Your task to perform on an android device: Open privacy settings Image 0: 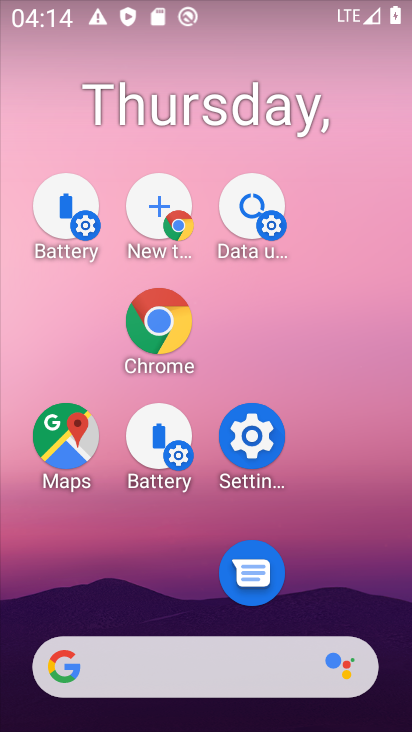
Step 0: drag from (202, 694) to (137, 248)
Your task to perform on an android device: Open privacy settings Image 1: 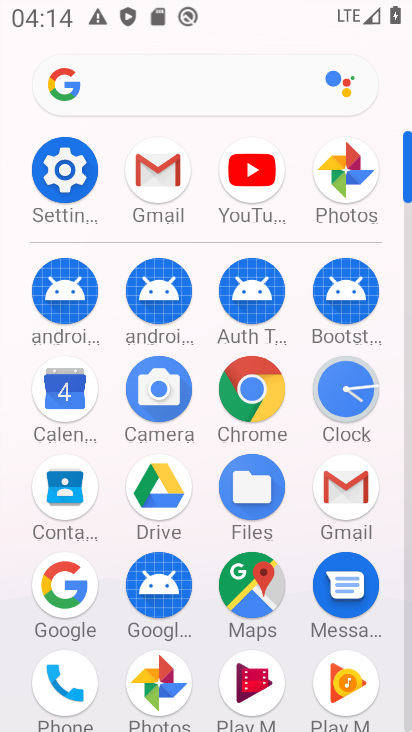
Step 1: click (61, 181)
Your task to perform on an android device: Open privacy settings Image 2: 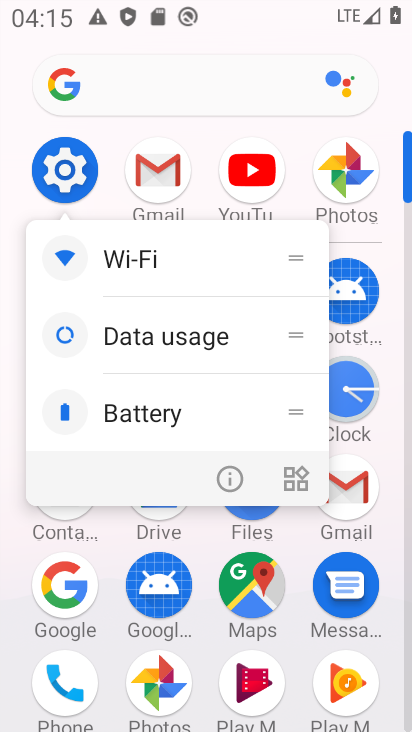
Step 2: click (162, 264)
Your task to perform on an android device: Open privacy settings Image 3: 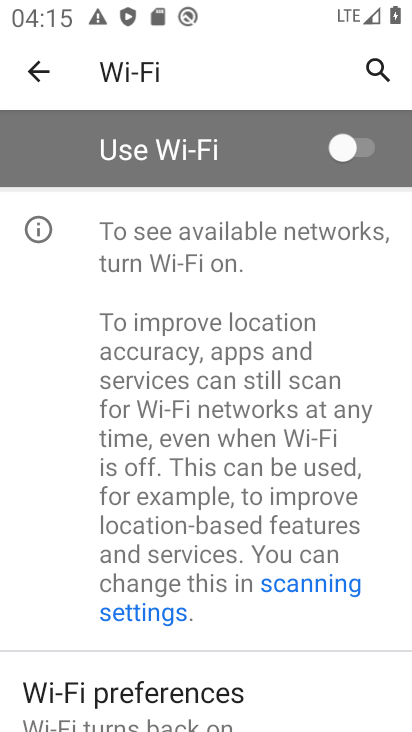
Step 3: click (25, 66)
Your task to perform on an android device: Open privacy settings Image 4: 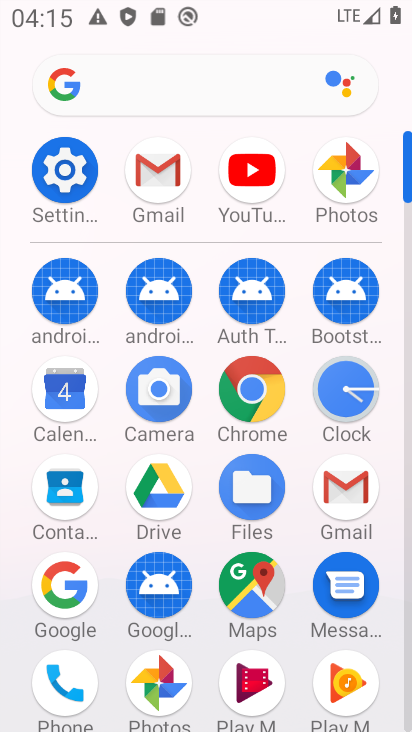
Step 4: click (56, 171)
Your task to perform on an android device: Open privacy settings Image 5: 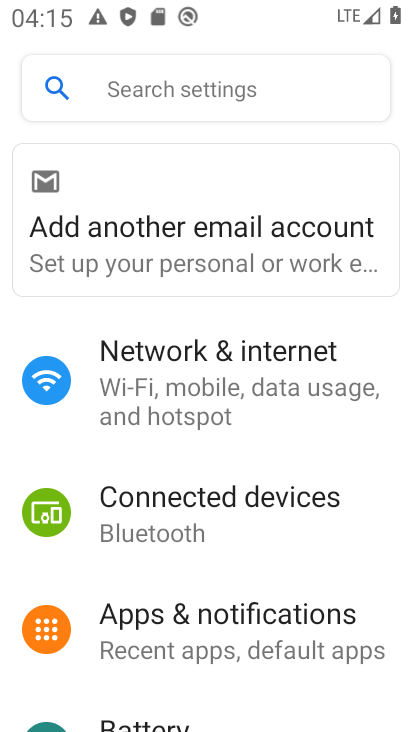
Step 5: drag from (206, 461) to (196, 171)
Your task to perform on an android device: Open privacy settings Image 6: 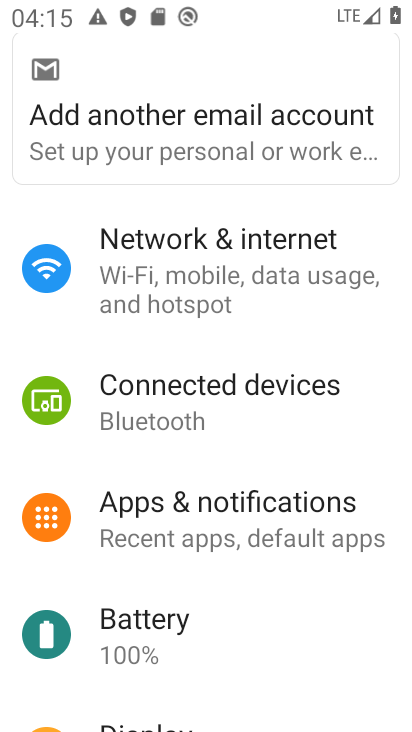
Step 6: drag from (214, 512) to (214, 438)
Your task to perform on an android device: Open privacy settings Image 7: 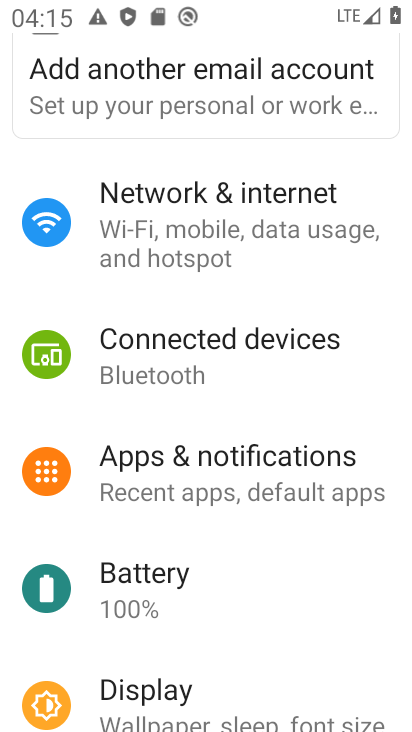
Step 7: drag from (163, 654) to (128, 220)
Your task to perform on an android device: Open privacy settings Image 8: 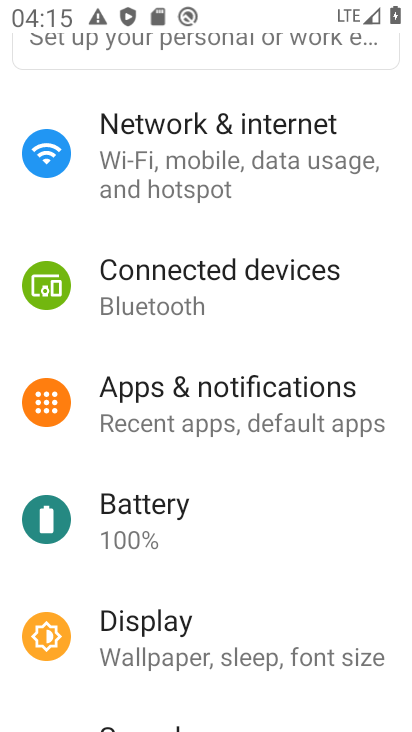
Step 8: drag from (177, 409) to (153, 178)
Your task to perform on an android device: Open privacy settings Image 9: 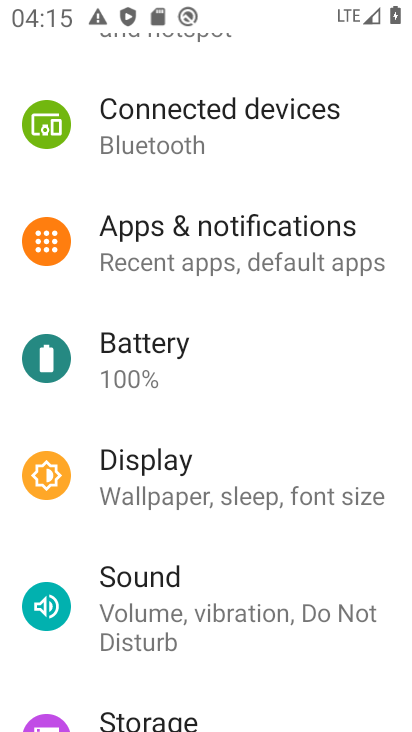
Step 9: drag from (234, 518) to (223, 367)
Your task to perform on an android device: Open privacy settings Image 10: 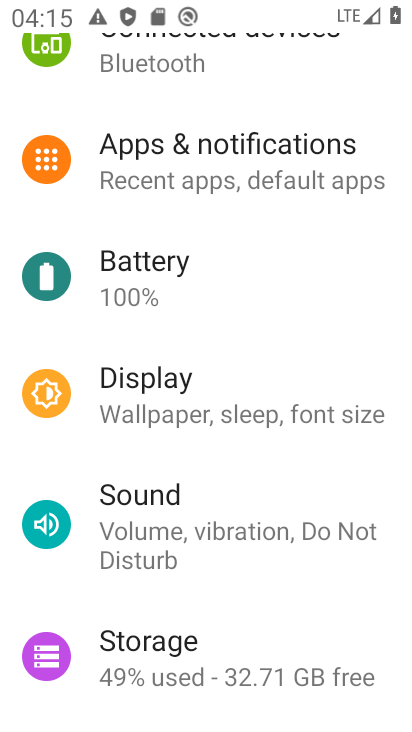
Step 10: drag from (165, 591) to (110, 292)
Your task to perform on an android device: Open privacy settings Image 11: 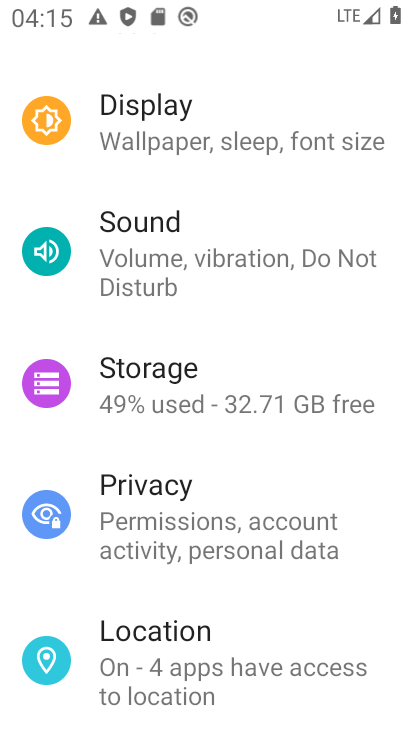
Step 11: drag from (136, 639) to (149, 323)
Your task to perform on an android device: Open privacy settings Image 12: 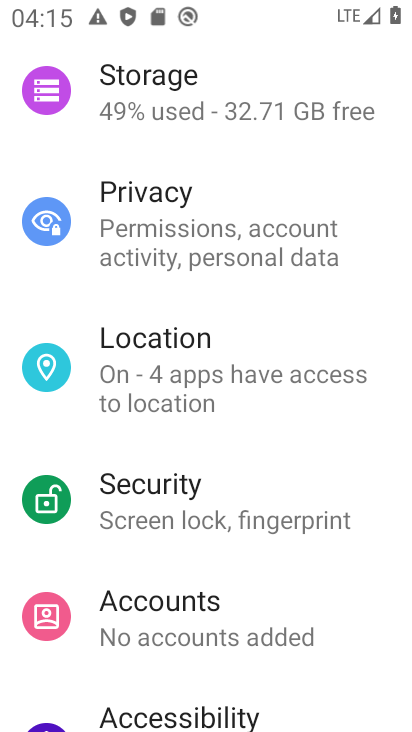
Step 12: drag from (200, 515) to (205, 347)
Your task to perform on an android device: Open privacy settings Image 13: 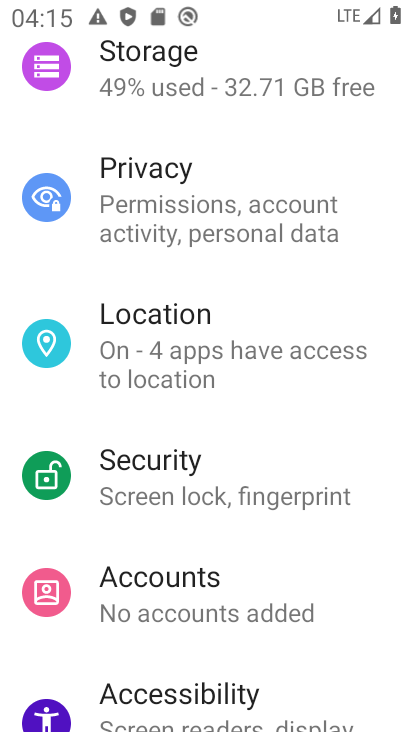
Step 13: click (149, 208)
Your task to perform on an android device: Open privacy settings Image 14: 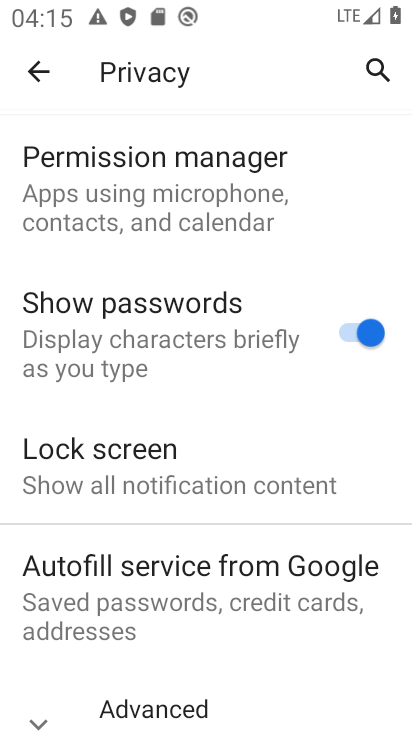
Step 14: task complete